Your task to perform on an android device: Toggle the flashlight Image 0: 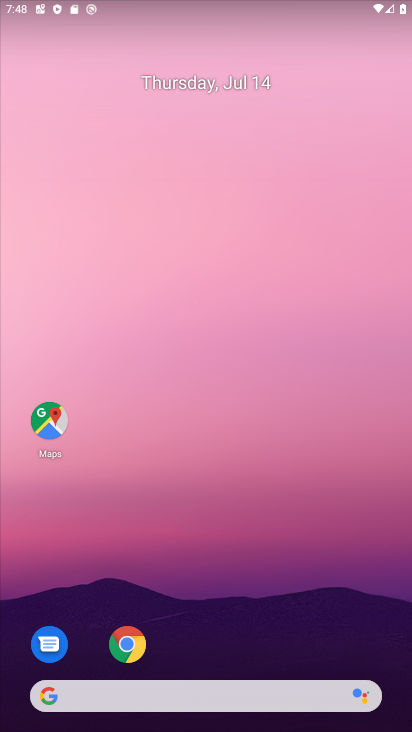
Step 0: drag from (274, 6) to (290, 446)
Your task to perform on an android device: Toggle the flashlight Image 1: 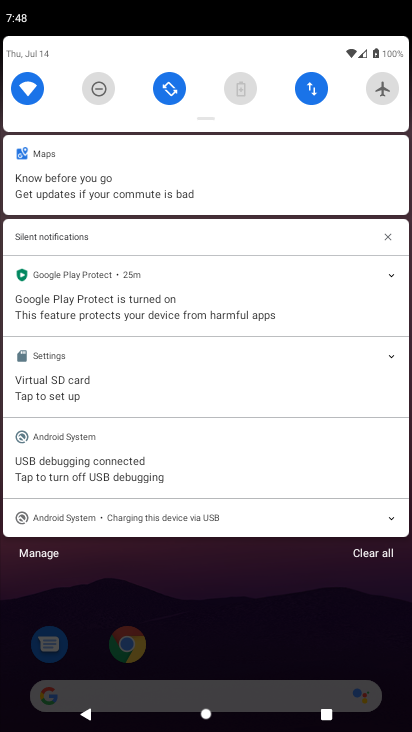
Step 1: task complete